Your task to perform on an android device: Search for hotels in Denver Image 0: 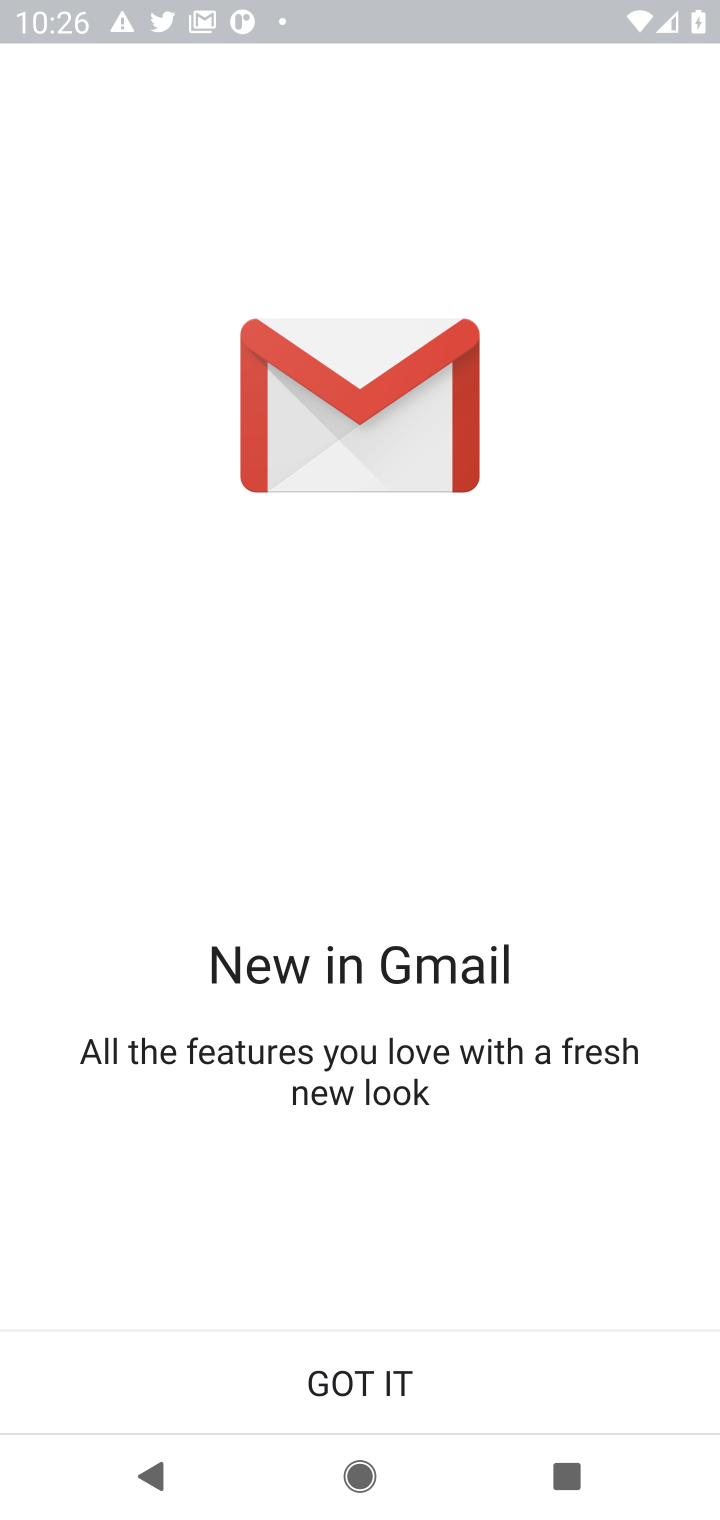
Step 0: press home button
Your task to perform on an android device: Search for hotels in Denver Image 1: 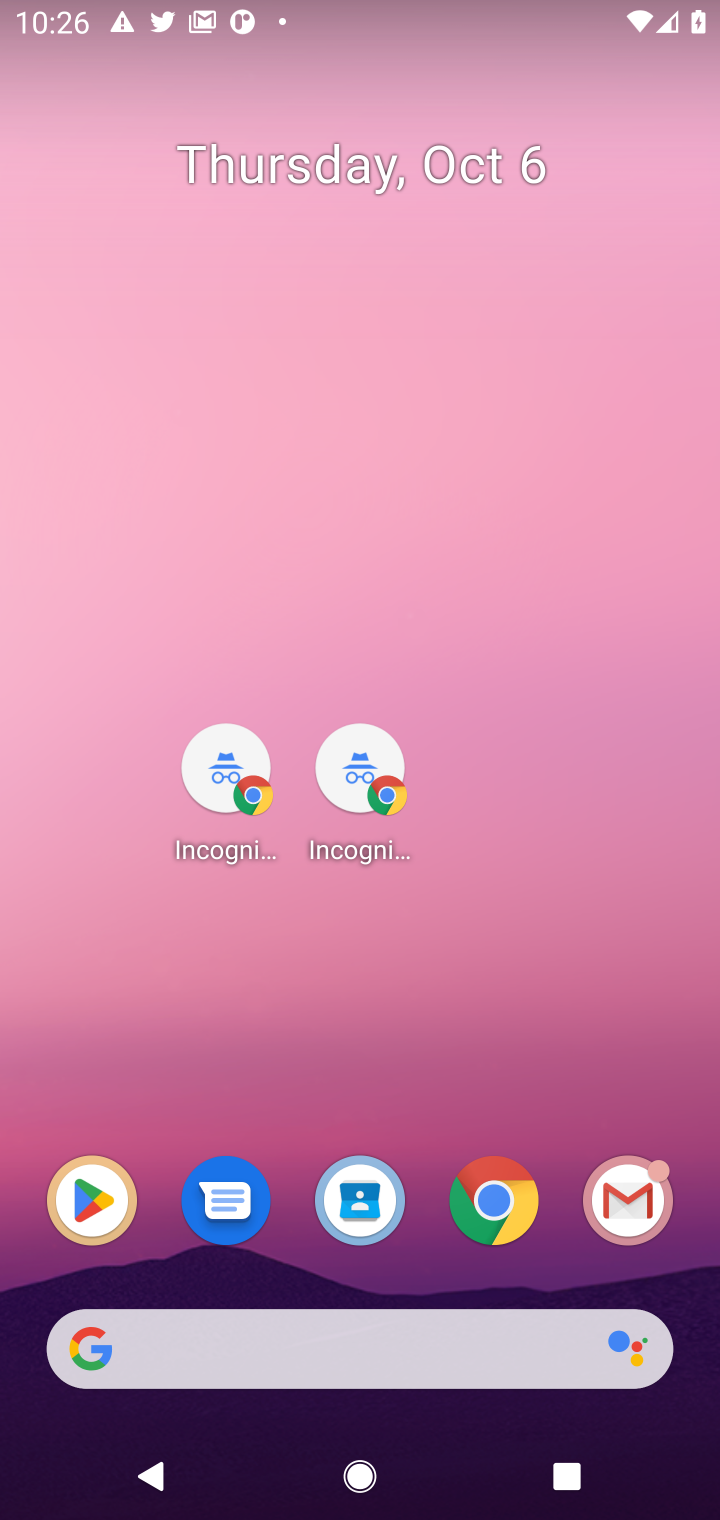
Step 1: press home button
Your task to perform on an android device: Search for hotels in Denver Image 2: 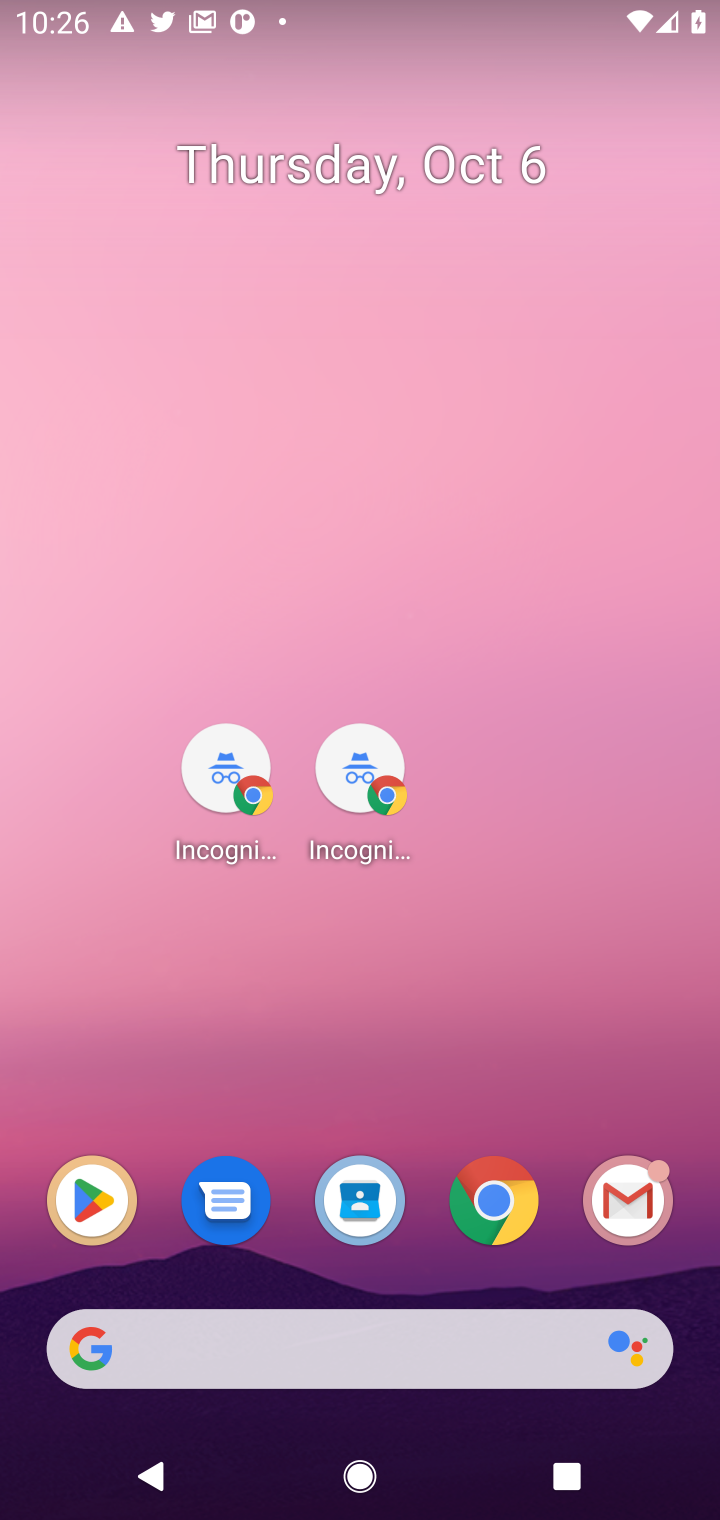
Step 2: click (498, 1220)
Your task to perform on an android device: Search for hotels in Denver Image 3: 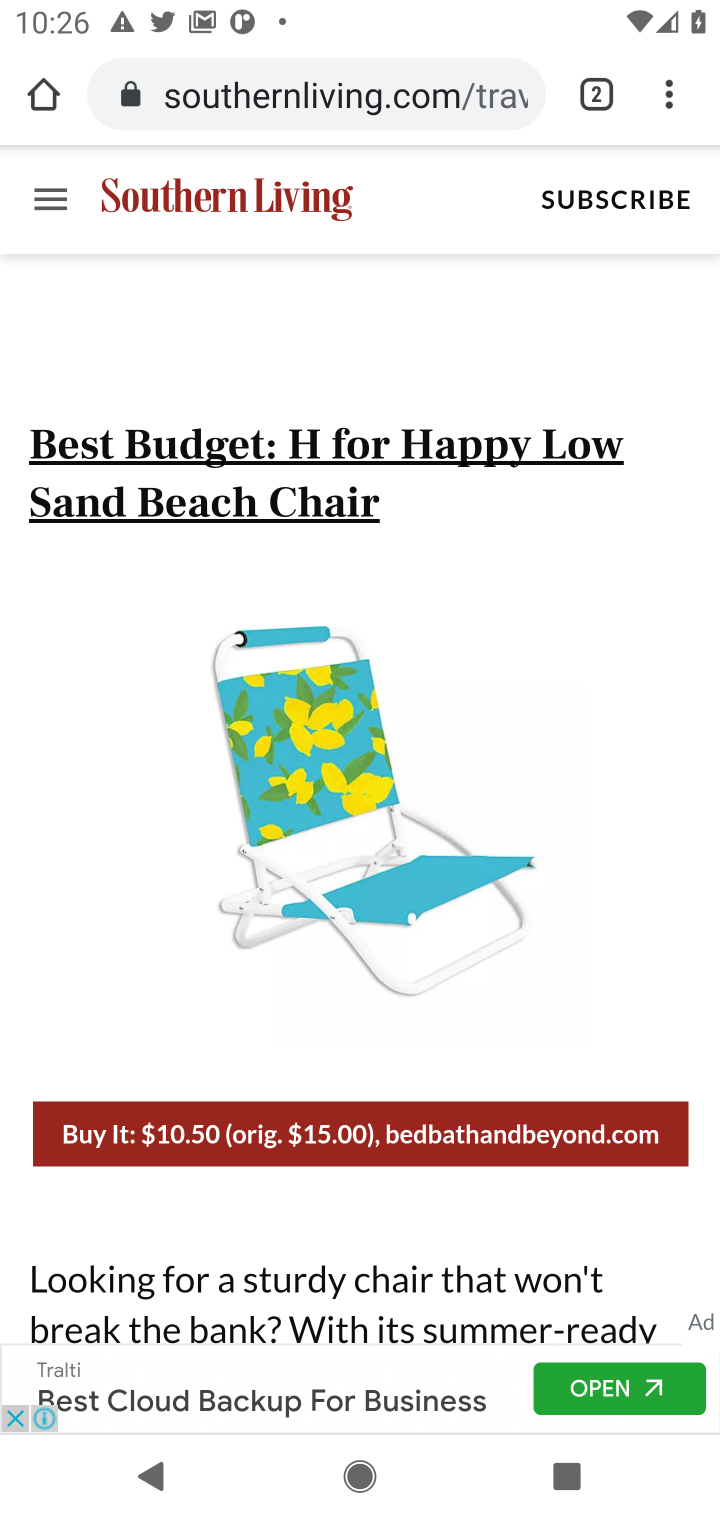
Step 3: press home button
Your task to perform on an android device: Search for hotels in Denver Image 4: 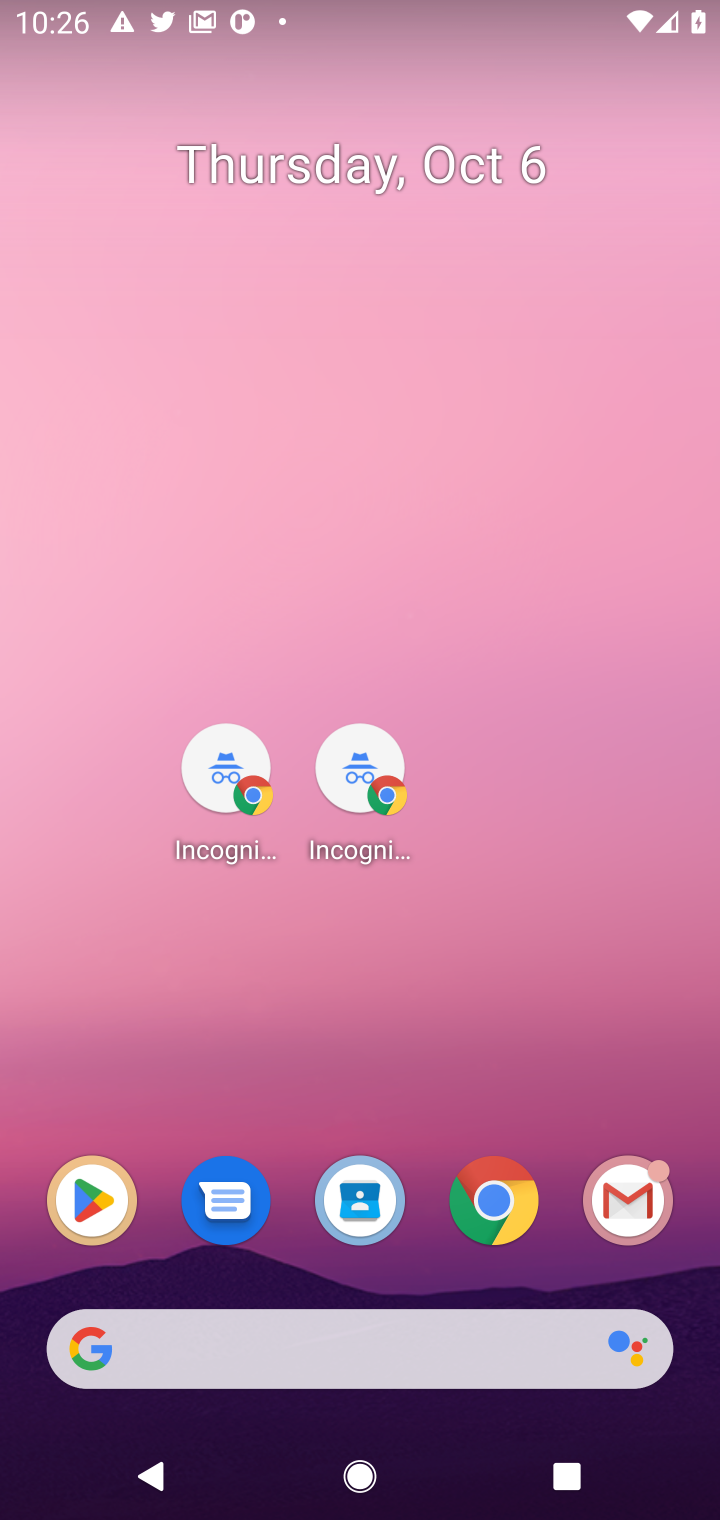
Step 4: click (473, 1185)
Your task to perform on an android device: Search for hotels in Denver Image 5: 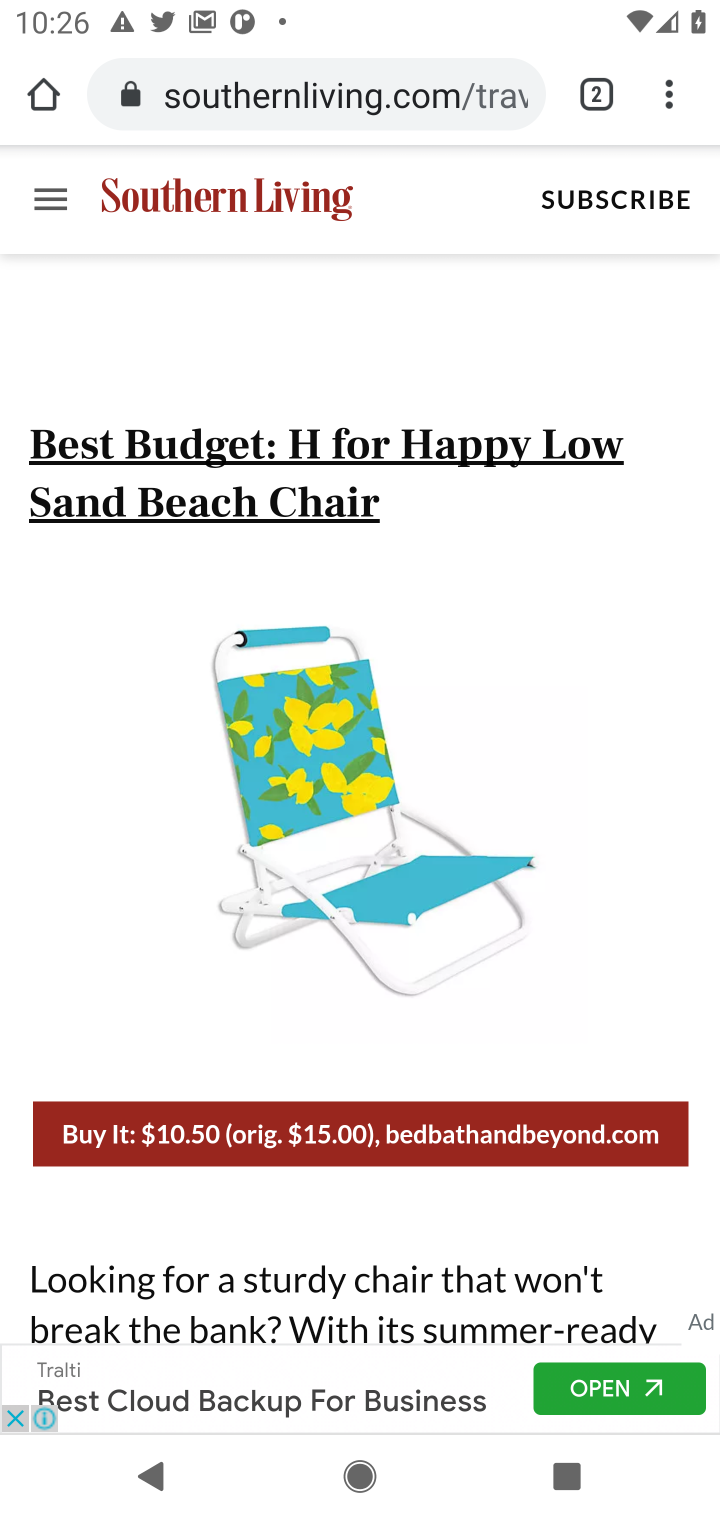
Step 5: click (299, 95)
Your task to perform on an android device: Search for hotels in Denver Image 6: 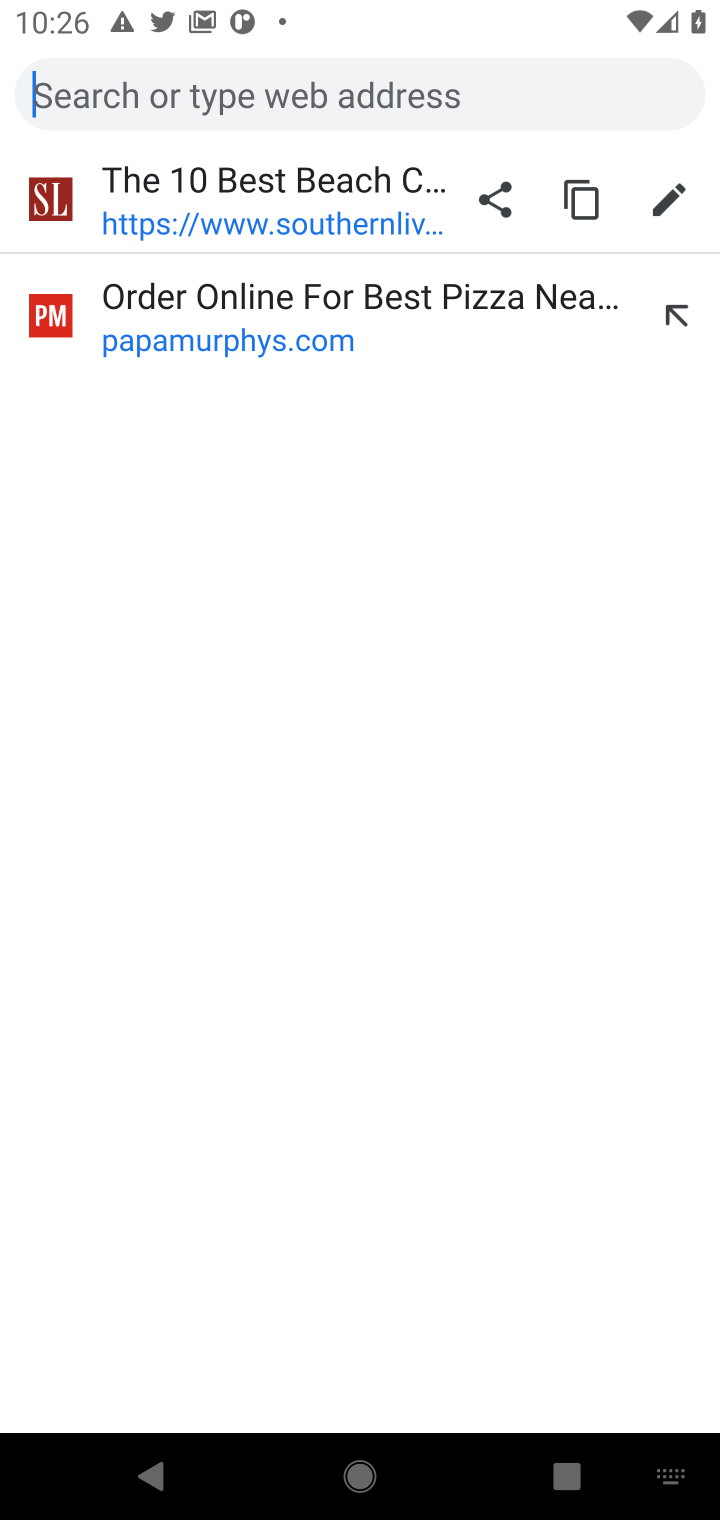
Step 6: type "hotel in denver"
Your task to perform on an android device: Search for hotels in Denver Image 7: 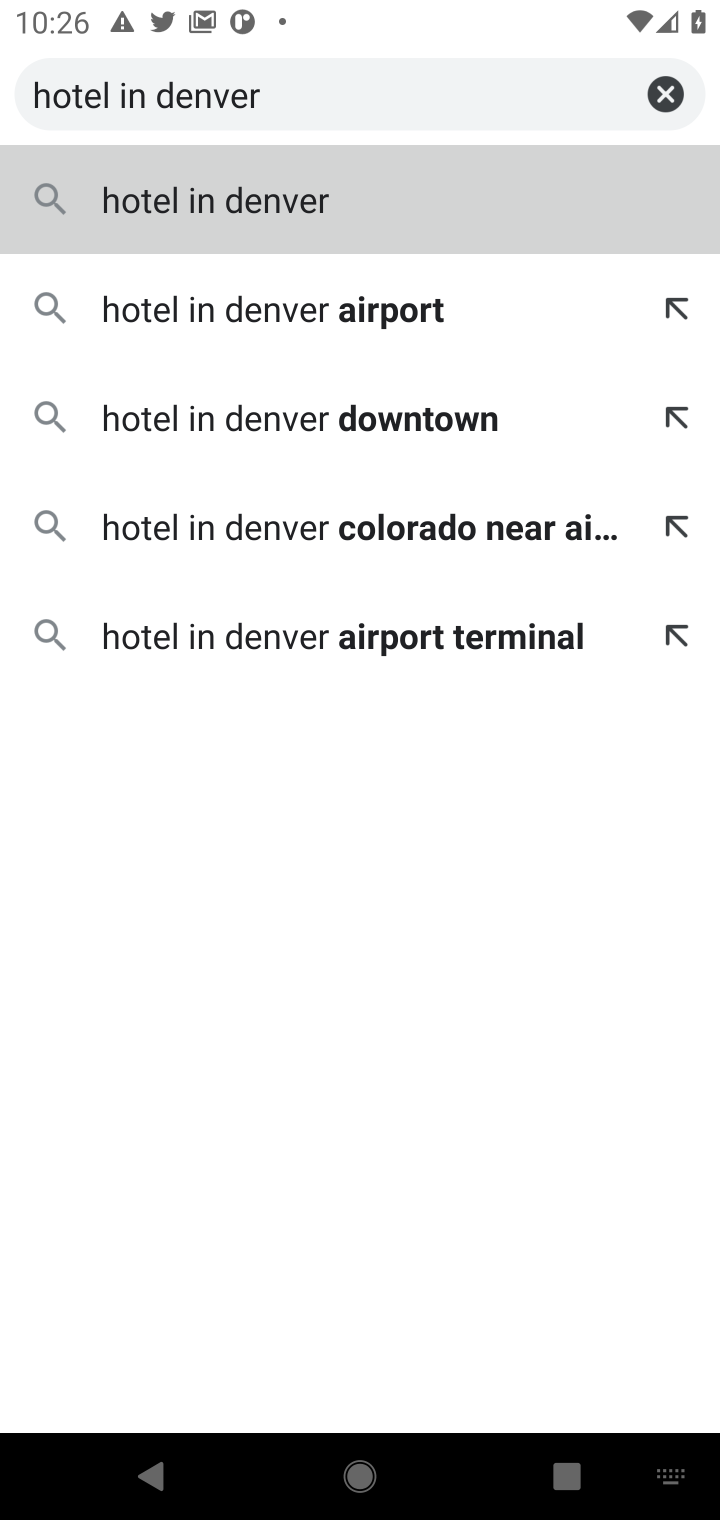
Step 7: type ""
Your task to perform on an android device: Search for hotels in Denver Image 8: 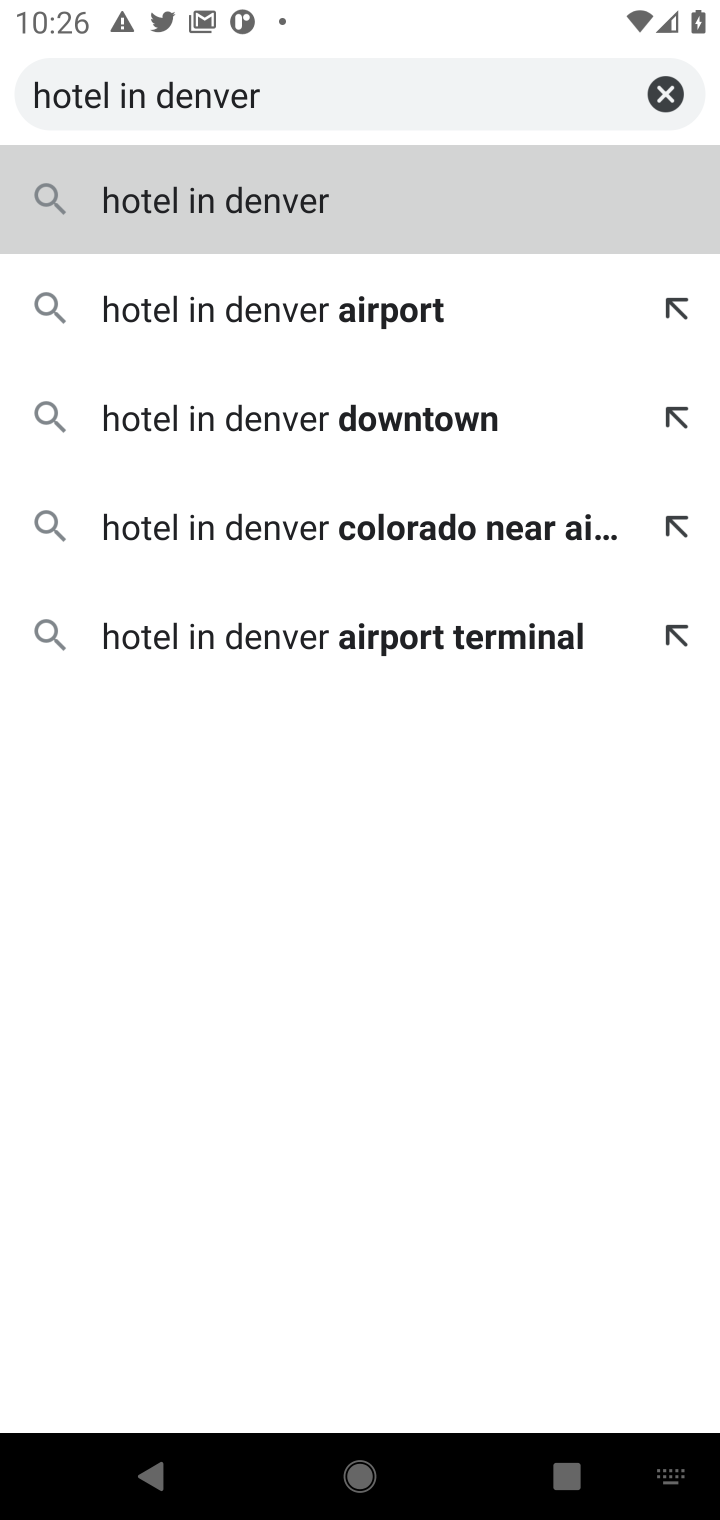
Step 8: click (195, 198)
Your task to perform on an android device: Search for hotels in Denver Image 9: 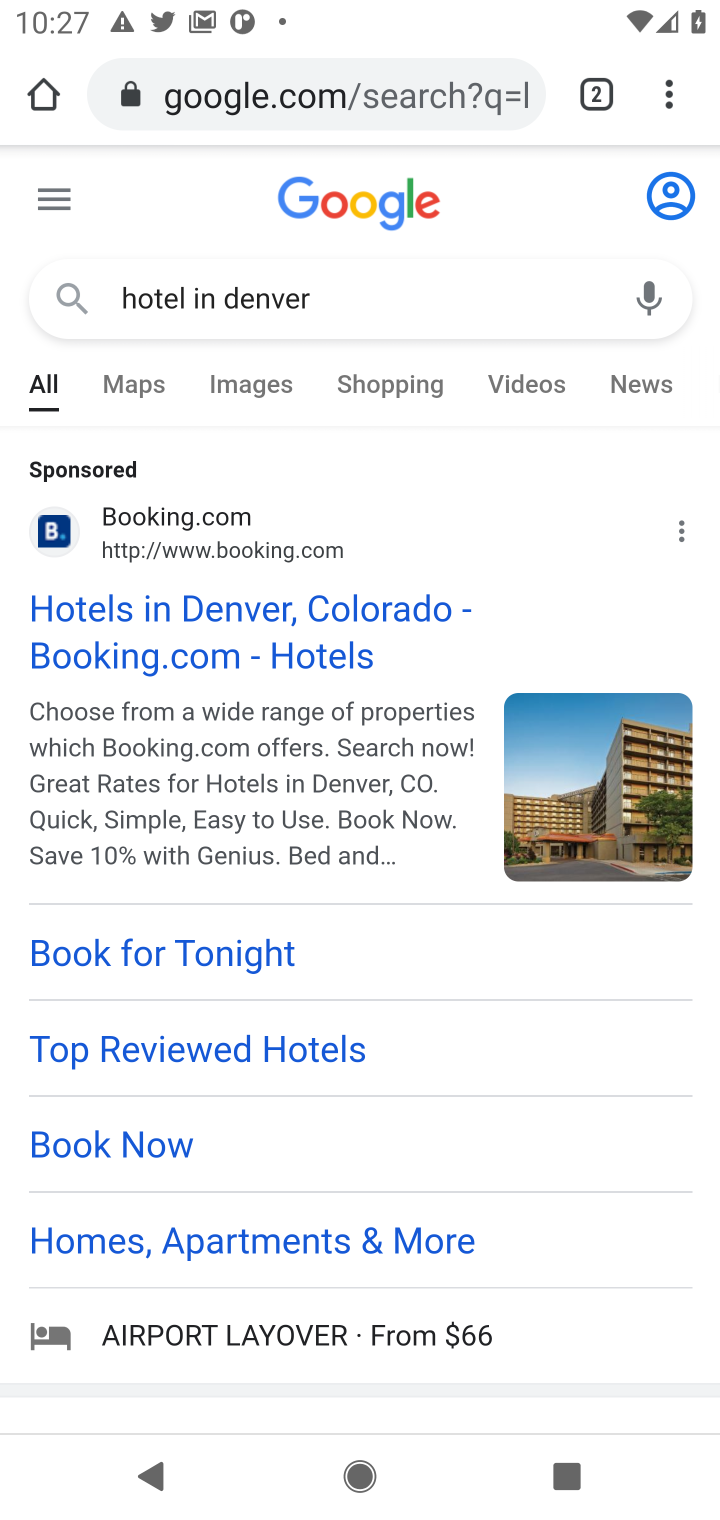
Step 9: click (244, 606)
Your task to perform on an android device: Search for hotels in Denver Image 10: 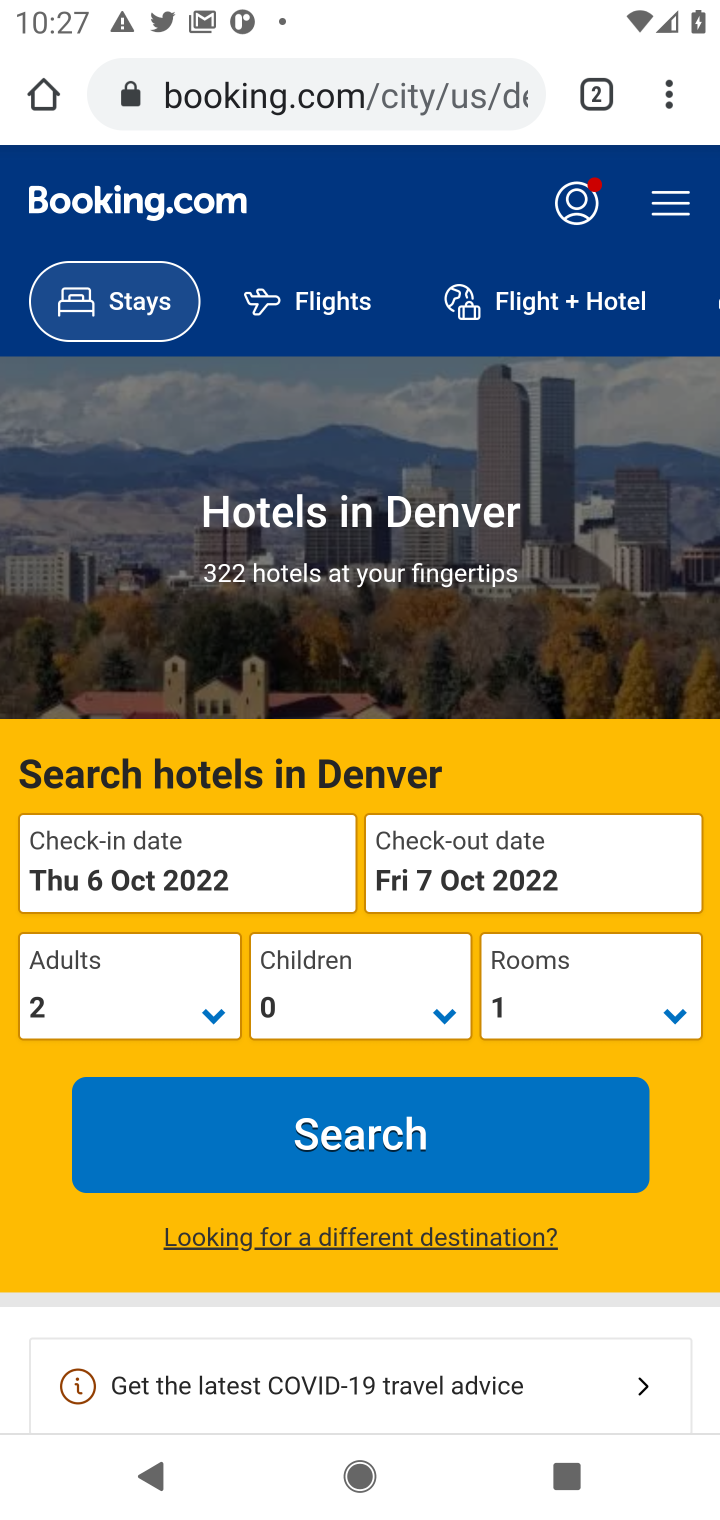
Step 10: click (200, 885)
Your task to perform on an android device: Search for hotels in Denver Image 11: 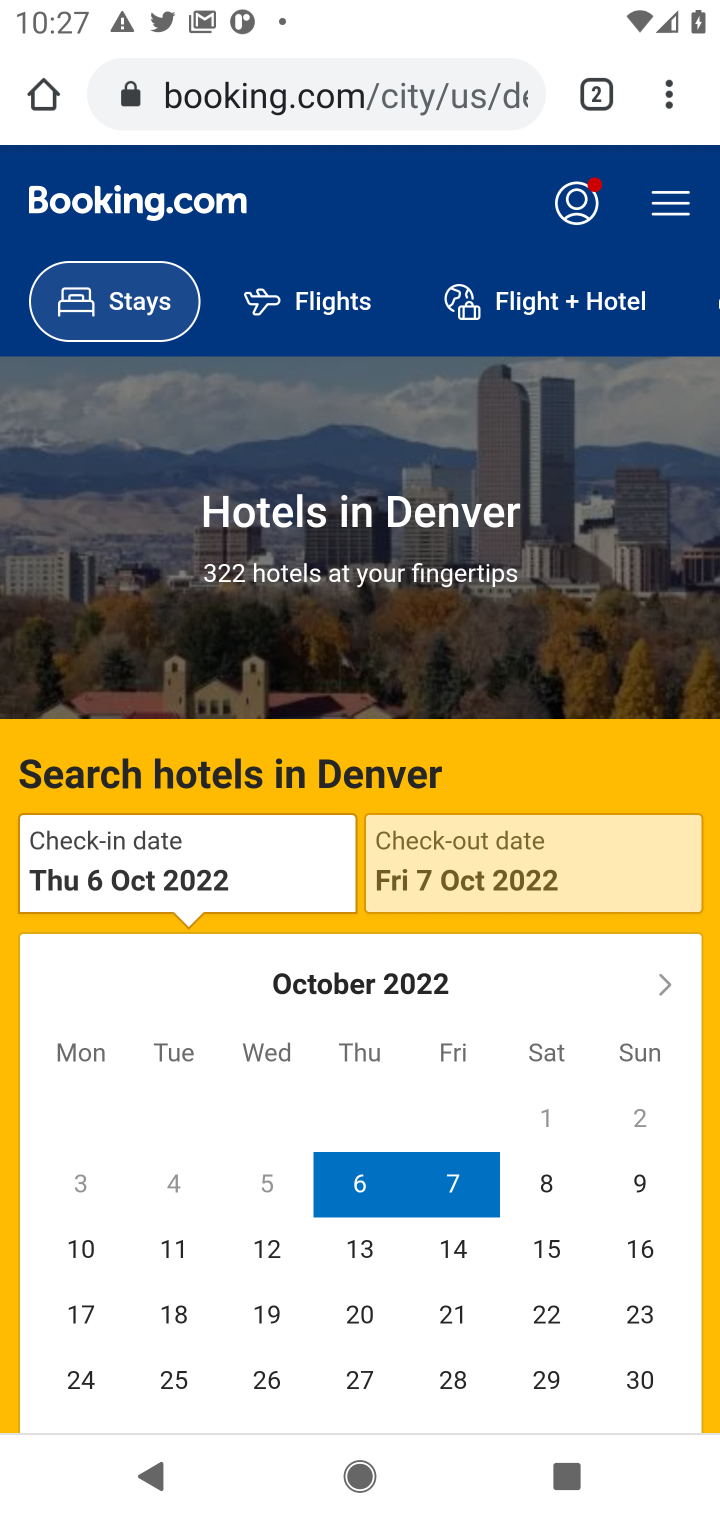
Step 11: click (556, 1190)
Your task to perform on an android device: Search for hotels in Denver Image 12: 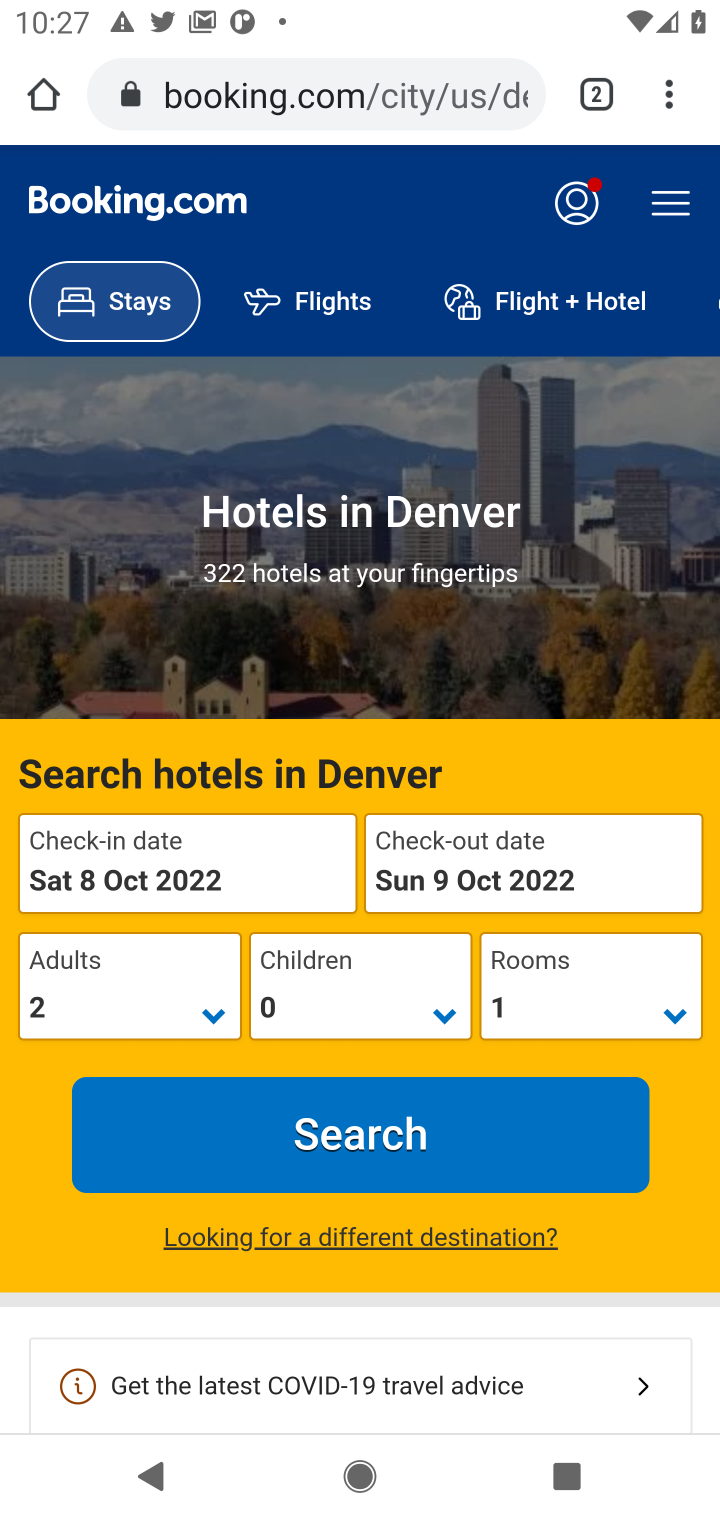
Step 12: click (575, 886)
Your task to perform on an android device: Search for hotels in Denver Image 13: 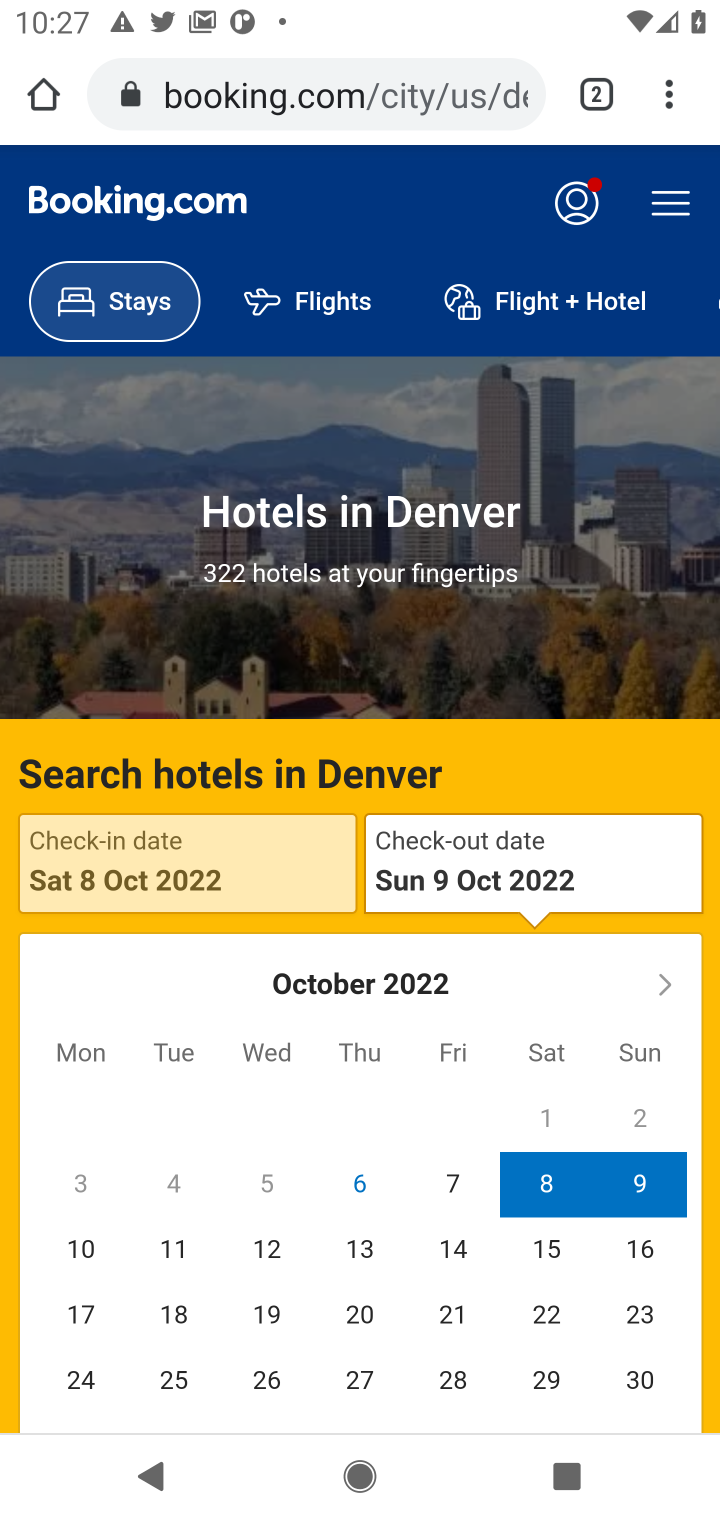
Step 13: click (162, 1249)
Your task to perform on an android device: Search for hotels in Denver Image 14: 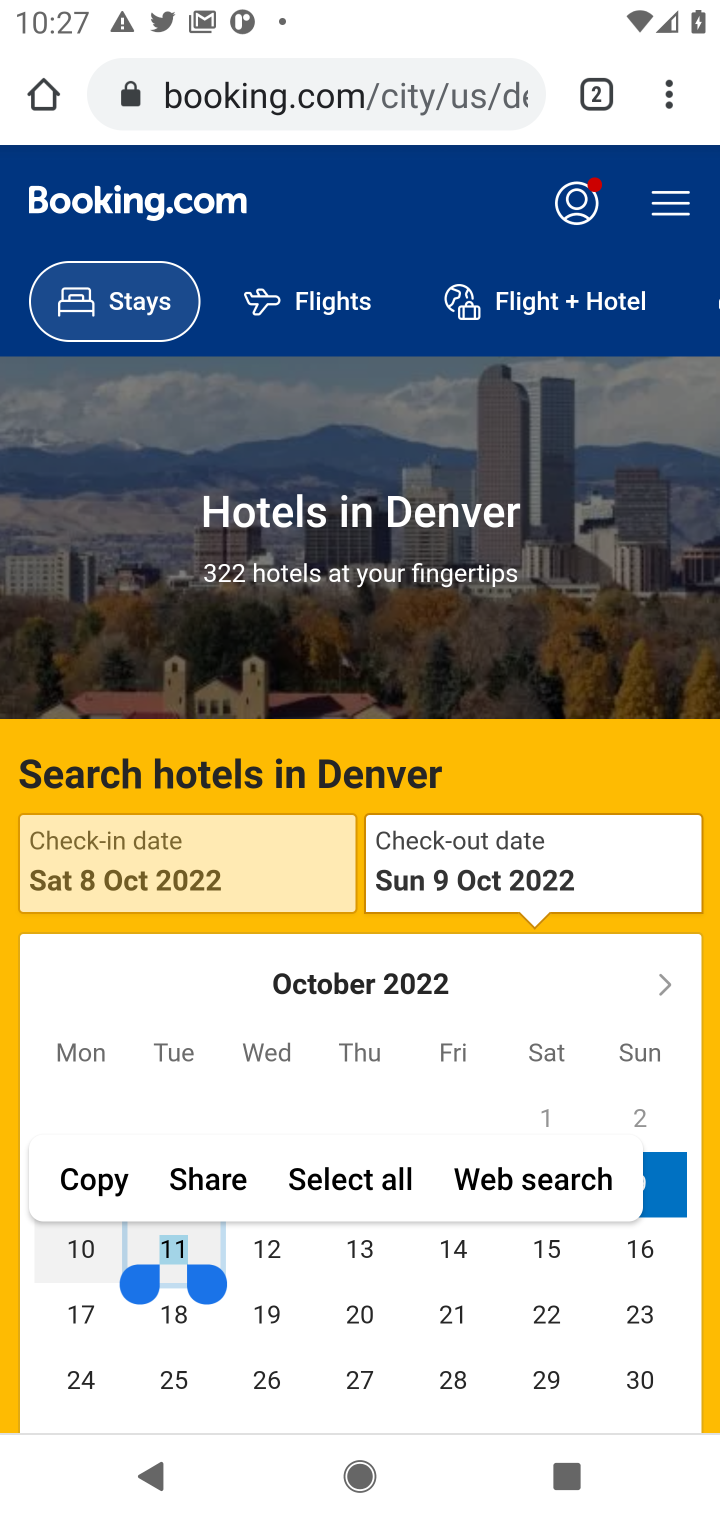
Step 14: click (161, 1228)
Your task to perform on an android device: Search for hotels in Denver Image 15: 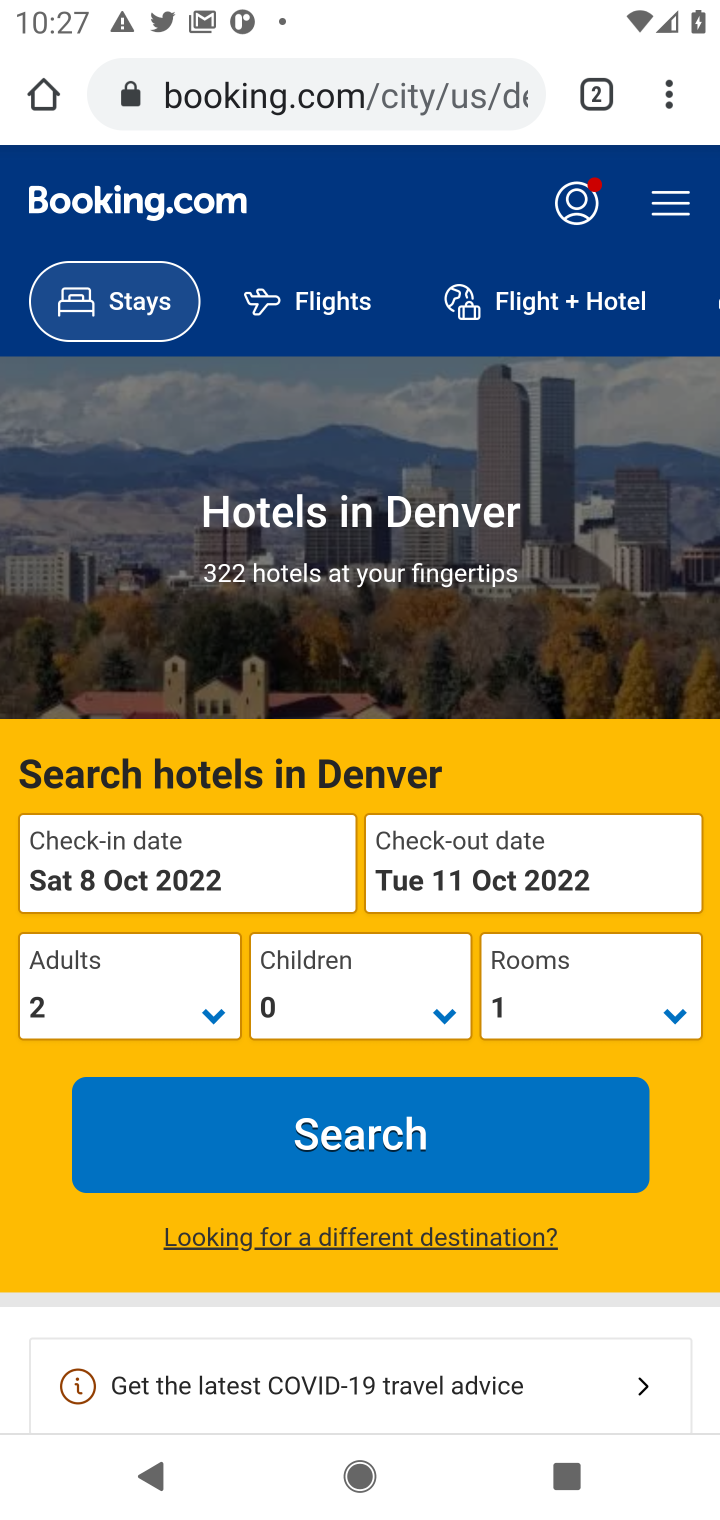
Step 15: click (407, 1147)
Your task to perform on an android device: Search for hotels in Denver Image 16: 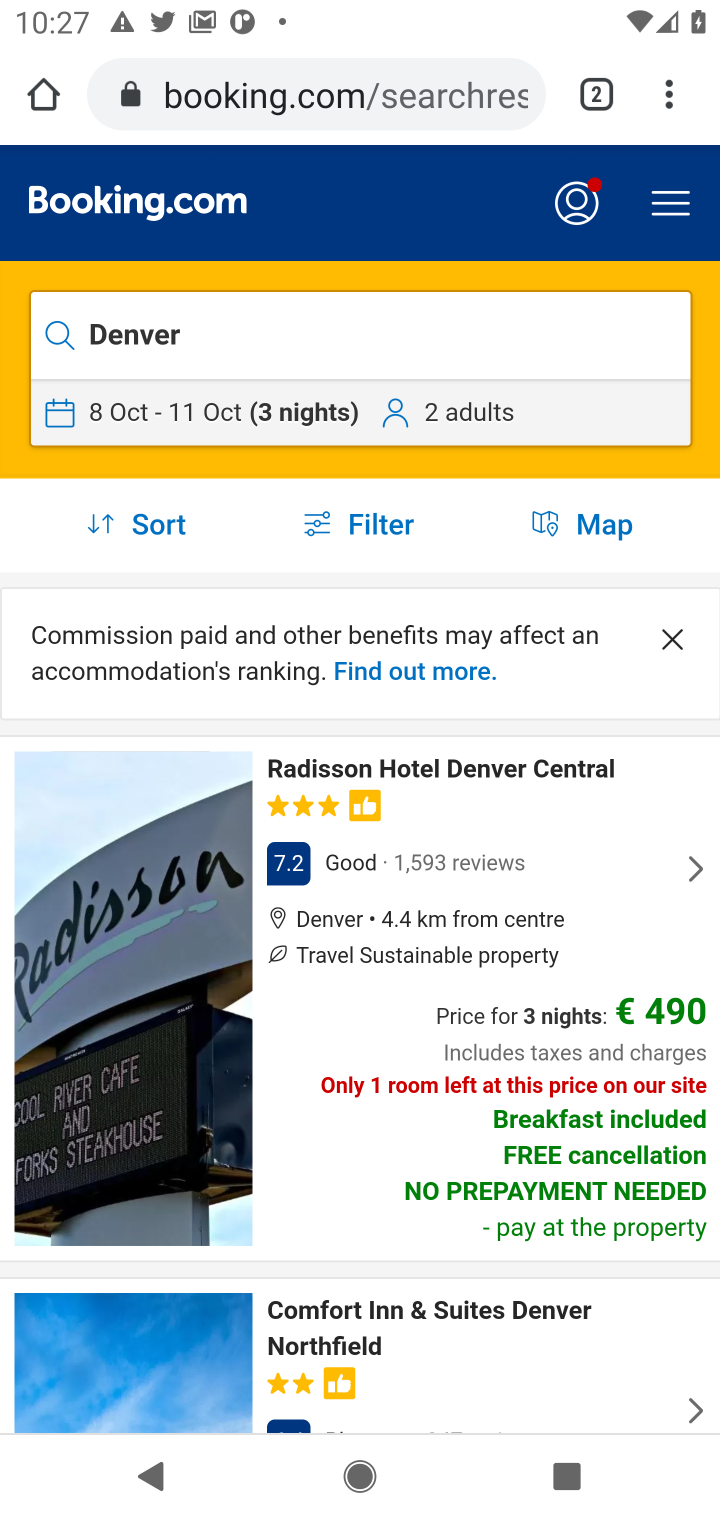
Step 16: task complete